Your task to perform on an android device: add a label to a message in the gmail app Image 0: 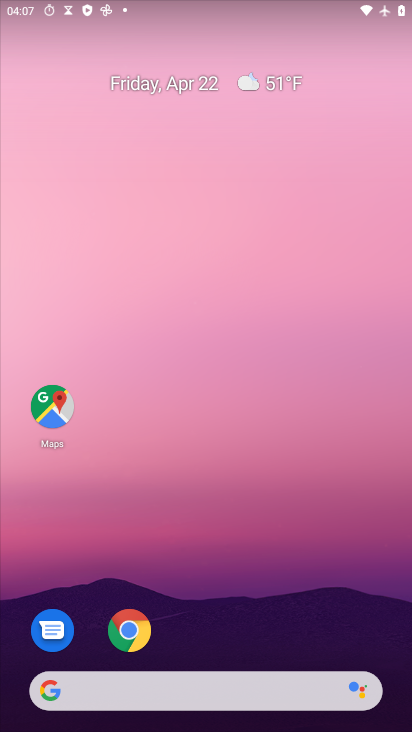
Step 0: drag from (272, 445) to (219, 62)
Your task to perform on an android device: add a label to a message in the gmail app Image 1: 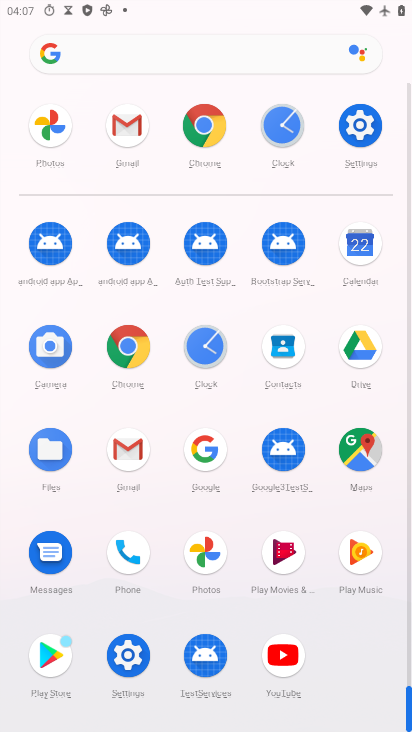
Step 1: drag from (10, 513) to (8, 295)
Your task to perform on an android device: add a label to a message in the gmail app Image 2: 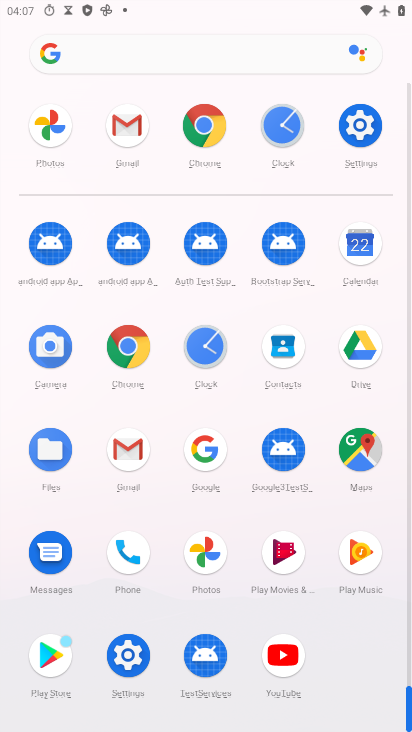
Step 2: drag from (2, 467) to (0, 269)
Your task to perform on an android device: add a label to a message in the gmail app Image 3: 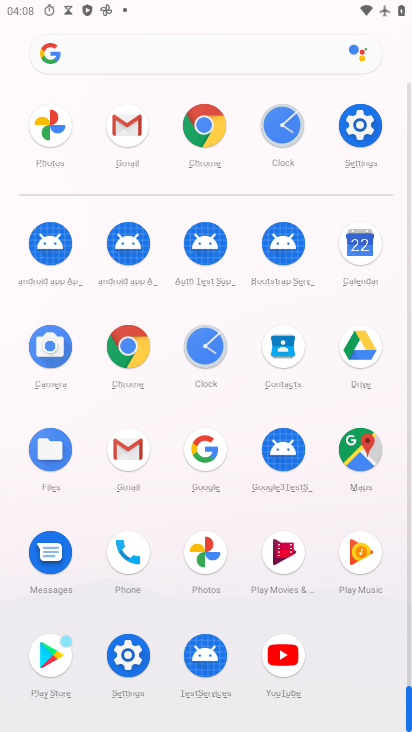
Step 3: click (122, 448)
Your task to perform on an android device: add a label to a message in the gmail app Image 4: 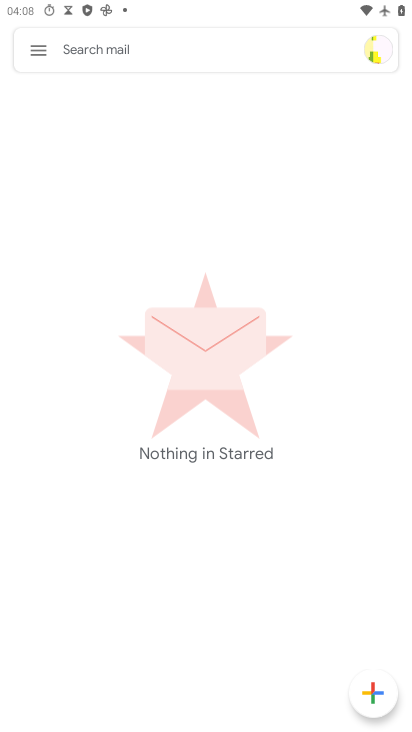
Step 4: click (39, 58)
Your task to perform on an android device: add a label to a message in the gmail app Image 5: 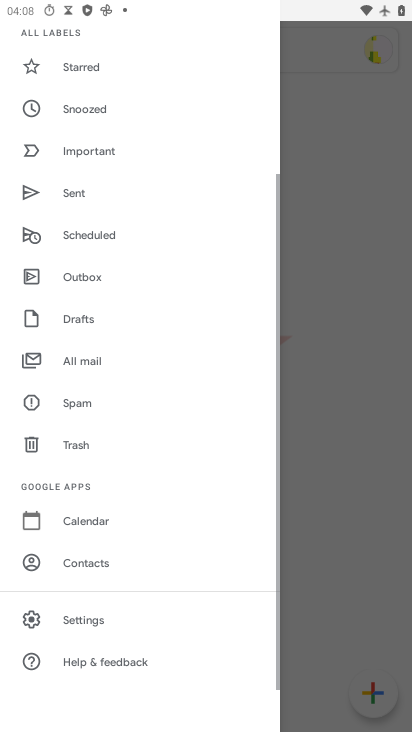
Step 5: drag from (131, 440) to (140, 46)
Your task to perform on an android device: add a label to a message in the gmail app Image 6: 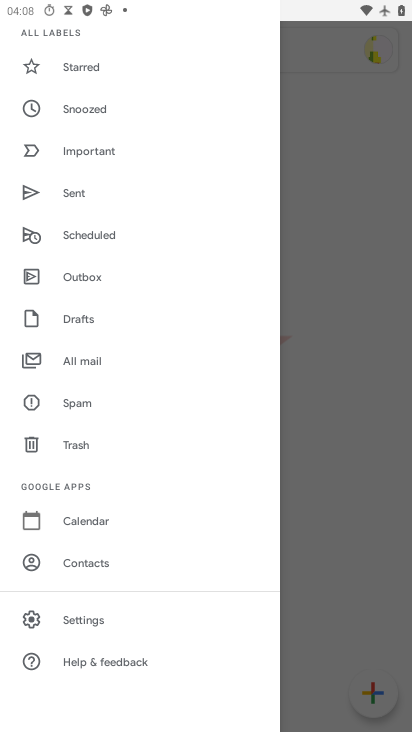
Step 6: click (101, 359)
Your task to perform on an android device: add a label to a message in the gmail app Image 7: 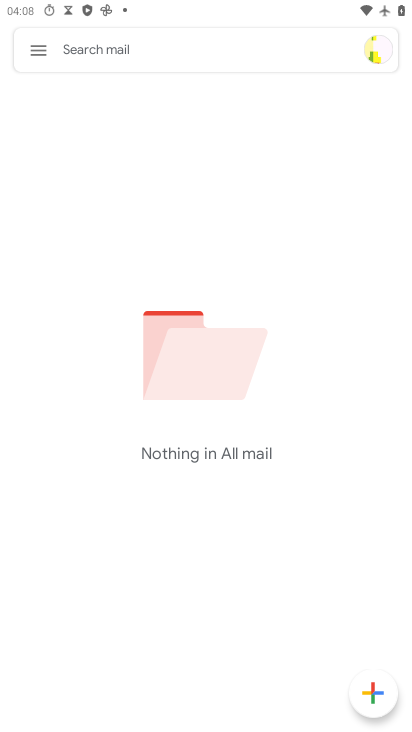
Step 7: task complete